Your task to perform on an android device: open device folders in google photos Image 0: 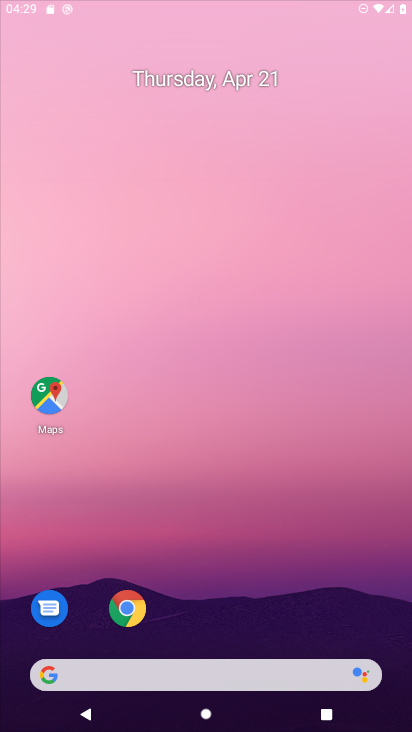
Step 0: click (220, 642)
Your task to perform on an android device: open device folders in google photos Image 1: 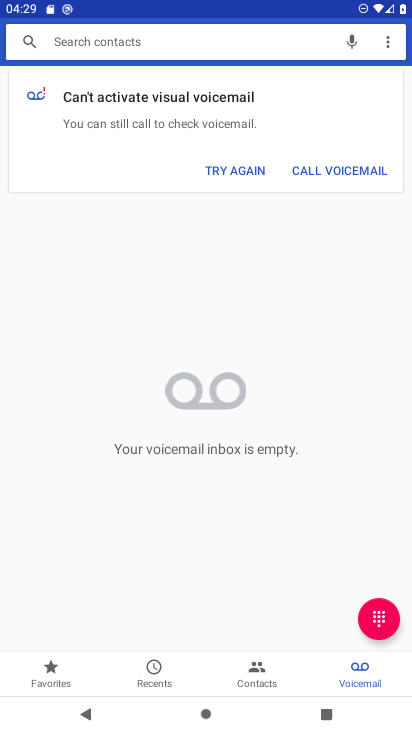
Step 1: drag from (238, 589) to (246, 226)
Your task to perform on an android device: open device folders in google photos Image 2: 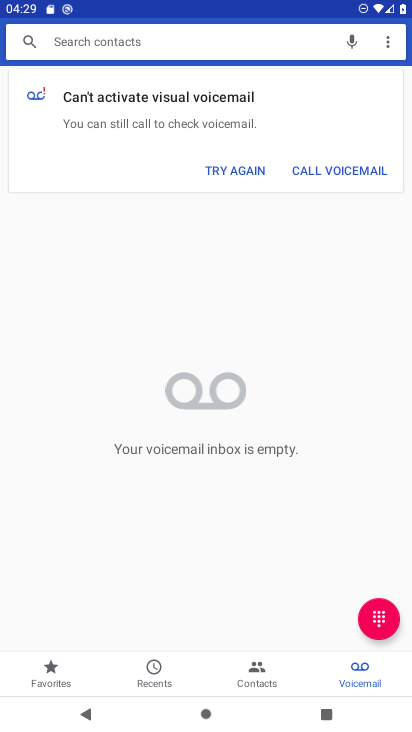
Step 2: press home button
Your task to perform on an android device: open device folders in google photos Image 3: 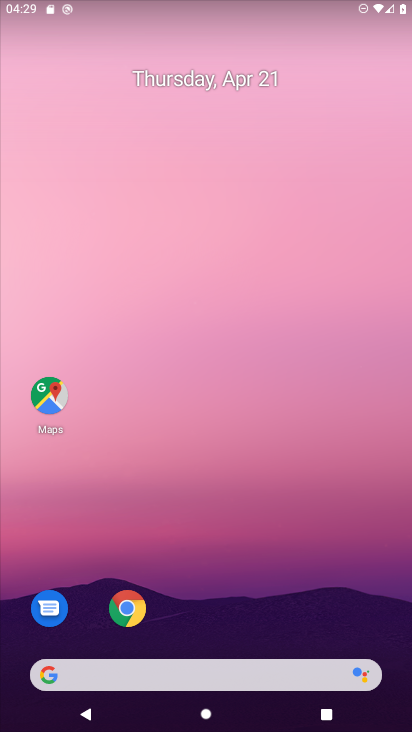
Step 3: drag from (229, 597) to (227, 159)
Your task to perform on an android device: open device folders in google photos Image 4: 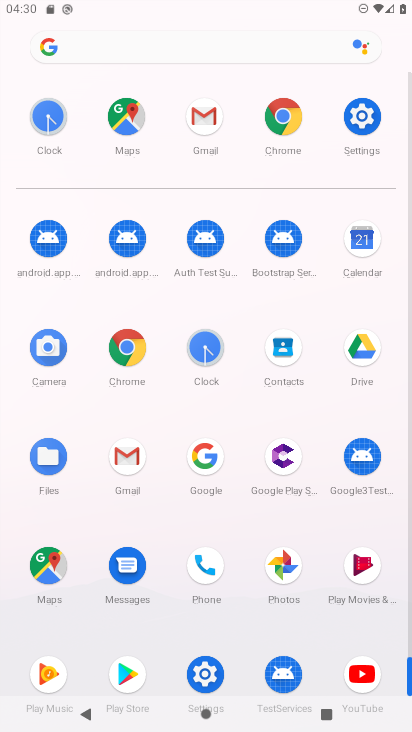
Step 4: click (280, 556)
Your task to perform on an android device: open device folders in google photos Image 5: 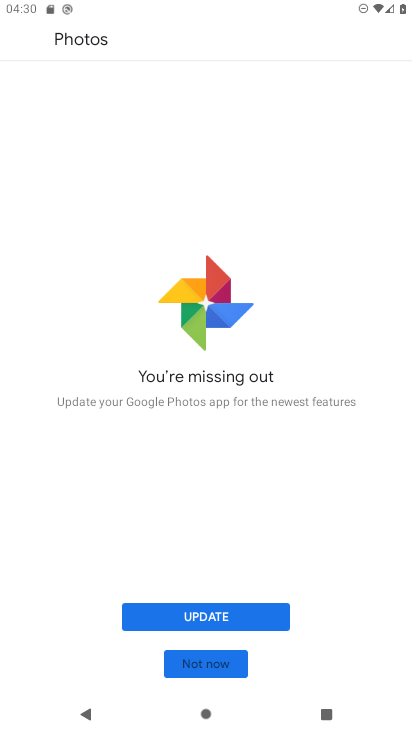
Step 5: click (204, 661)
Your task to perform on an android device: open device folders in google photos Image 6: 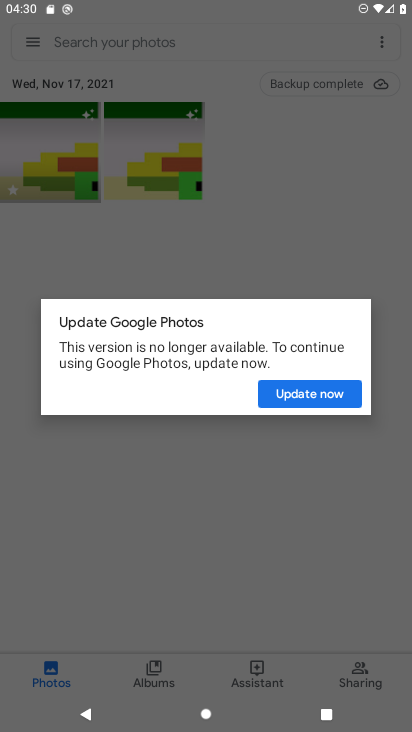
Step 6: press home button
Your task to perform on an android device: open device folders in google photos Image 7: 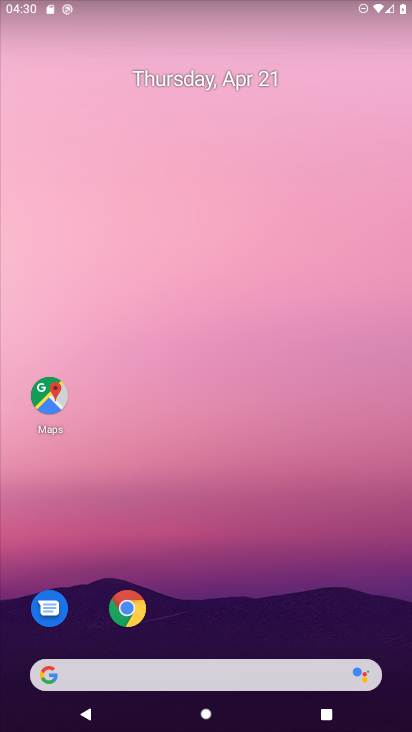
Step 7: drag from (208, 565) to (199, 197)
Your task to perform on an android device: open device folders in google photos Image 8: 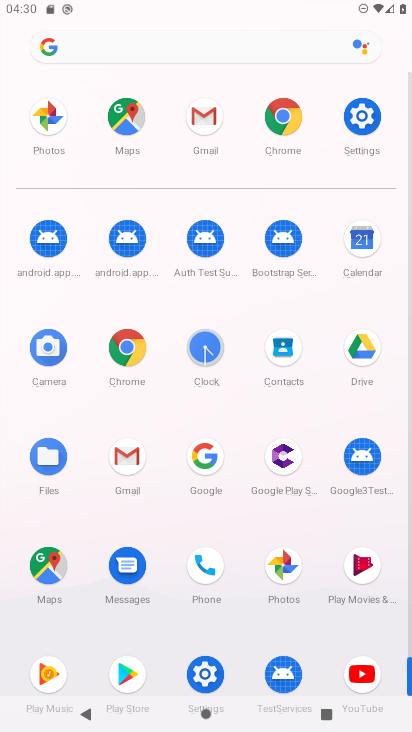
Step 8: click (288, 562)
Your task to perform on an android device: open device folders in google photos Image 9: 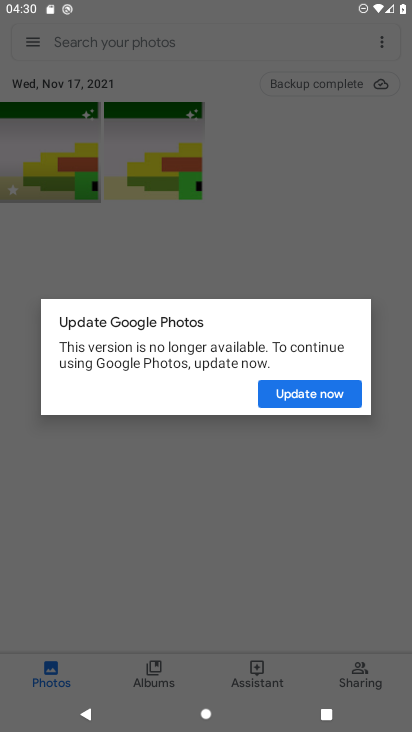
Step 9: click (290, 400)
Your task to perform on an android device: open device folders in google photos Image 10: 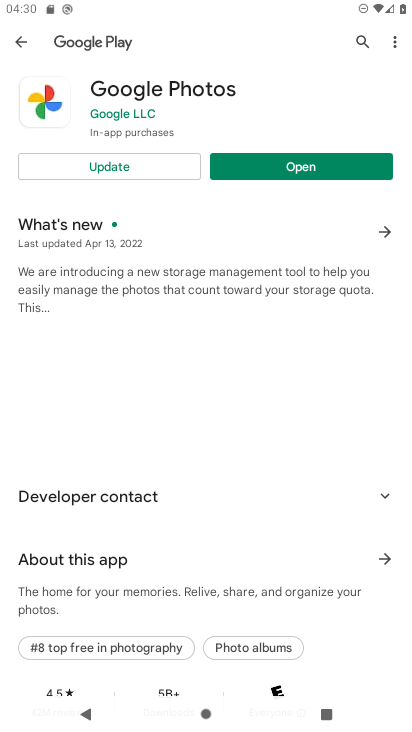
Step 10: press back button
Your task to perform on an android device: open device folders in google photos Image 11: 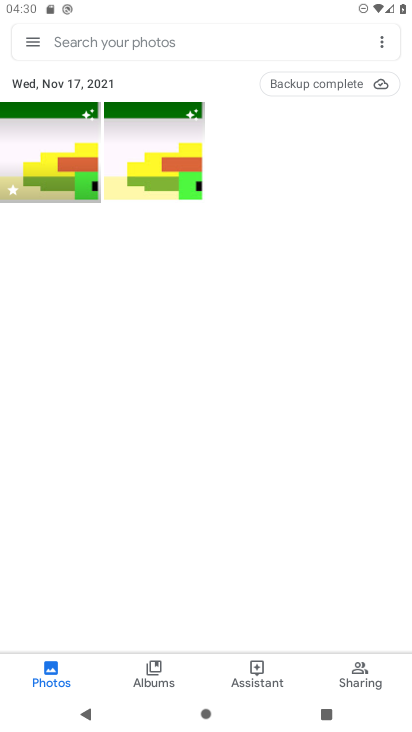
Step 11: click (54, 143)
Your task to perform on an android device: open device folders in google photos Image 12: 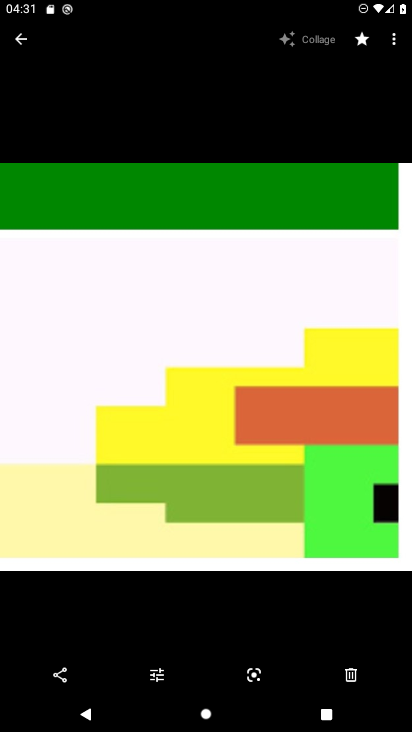
Step 12: task complete